Your task to perform on an android device: Open the map Image 0: 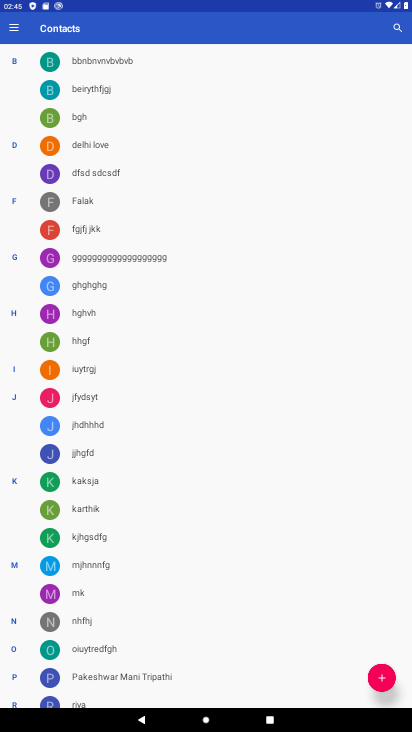
Step 0: press home button
Your task to perform on an android device: Open the map Image 1: 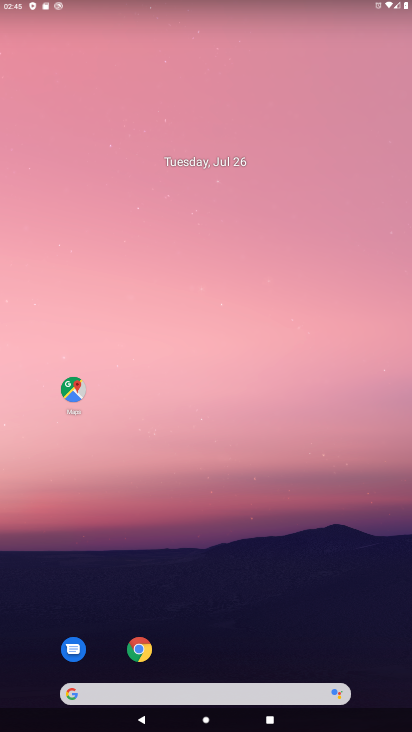
Step 1: click (70, 388)
Your task to perform on an android device: Open the map Image 2: 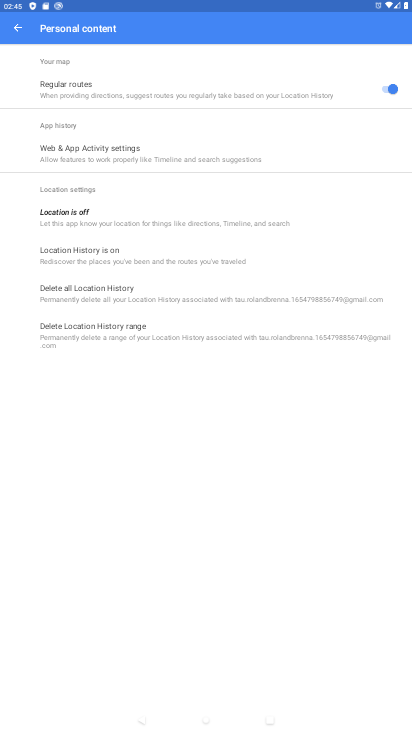
Step 2: task complete